Your task to perform on an android device: Open the calendar and show me this week's events? Image 0: 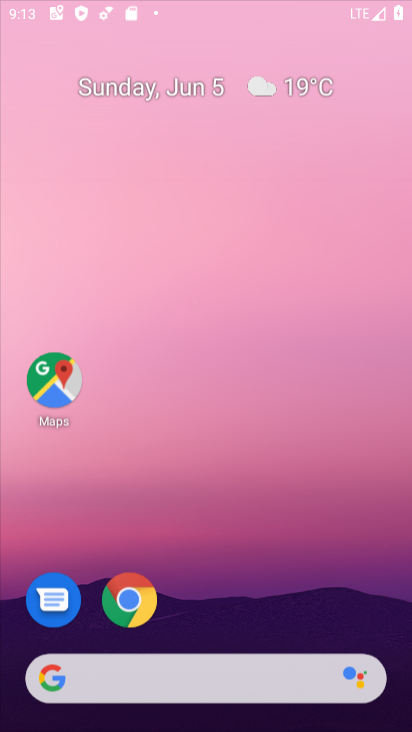
Step 0: drag from (188, 6) to (298, 3)
Your task to perform on an android device: Open the calendar and show me this week's events? Image 1: 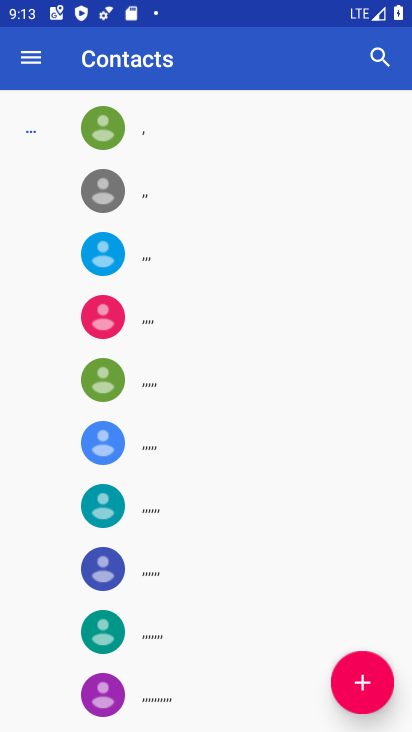
Step 1: press home button
Your task to perform on an android device: Open the calendar and show me this week's events? Image 2: 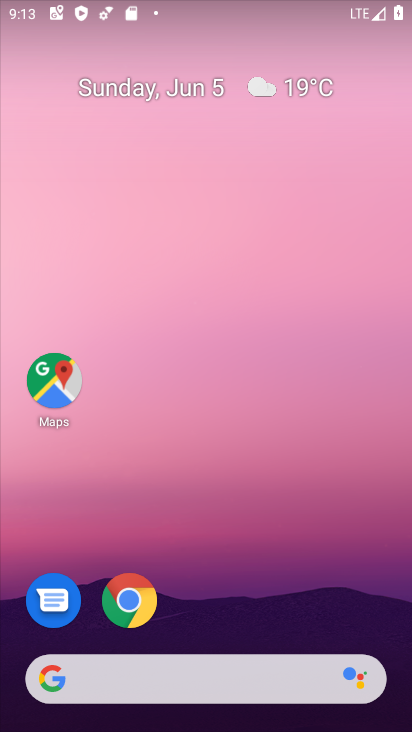
Step 2: drag from (225, 626) to (175, 131)
Your task to perform on an android device: Open the calendar and show me this week's events? Image 3: 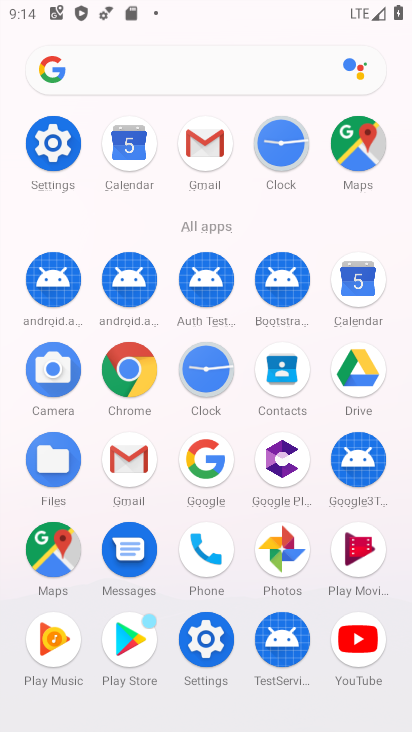
Step 3: click (356, 305)
Your task to perform on an android device: Open the calendar and show me this week's events? Image 4: 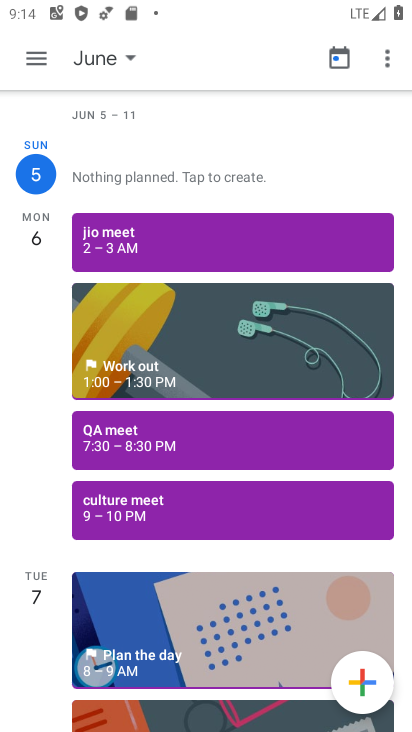
Step 4: task complete